Your task to perform on an android device: open chrome and create a bookmark for the current page Image 0: 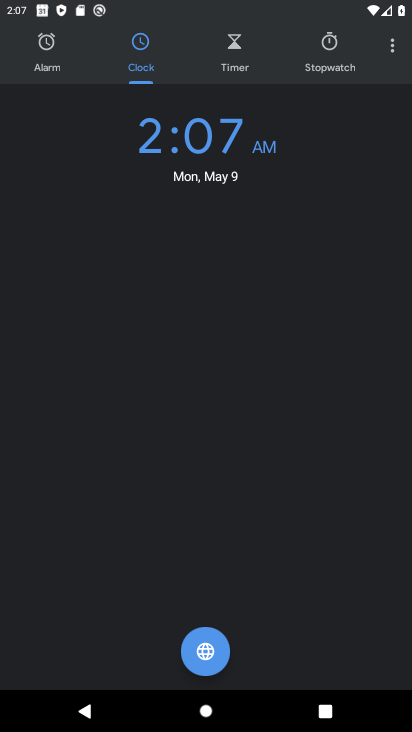
Step 0: press home button
Your task to perform on an android device: open chrome and create a bookmark for the current page Image 1: 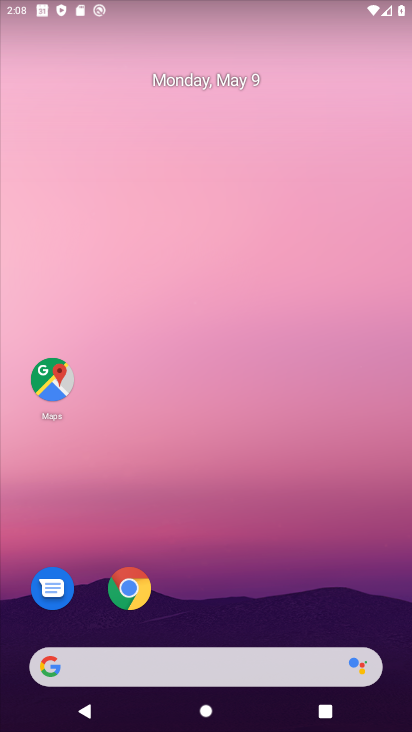
Step 1: click (128, 592)
Your task to perform on an android device: open chrome and create a bookmark for the current page Image 2: 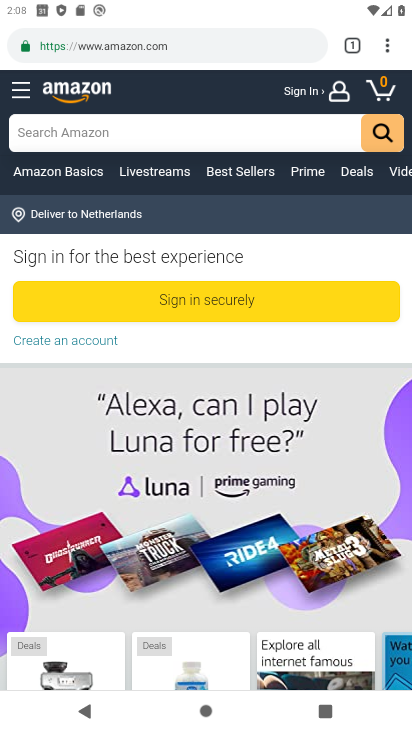
Step 2: press back button
Your task to perform on an android device: open chrome and create a bookmark for the current page Image 3: 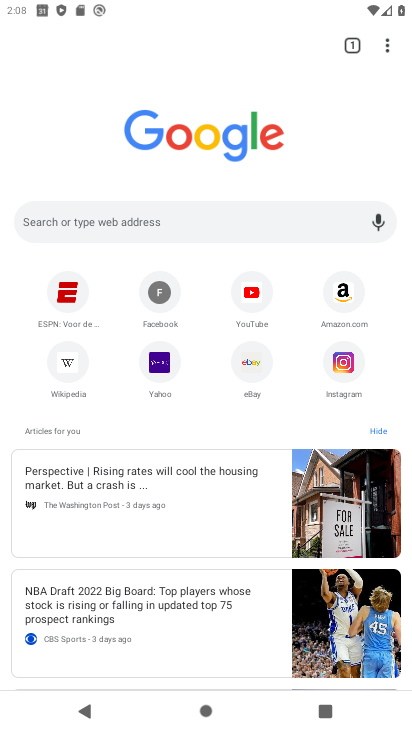
Step 3: click (388, 43)
Your task to perform on an android device: open chrome and create a bookmark for the current page Image 4: 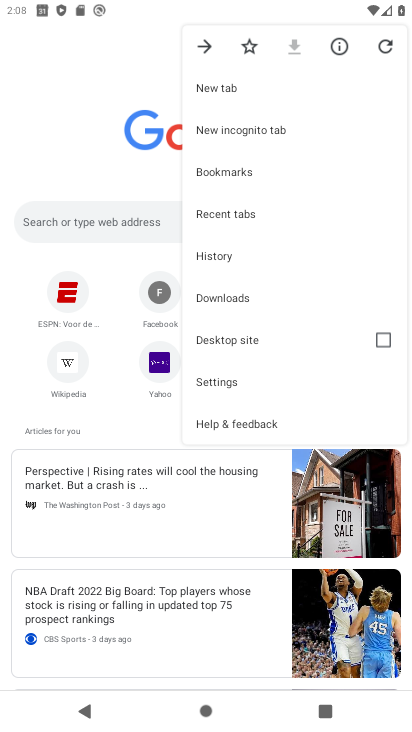
Step 4: click (250, 52)
Your task to perform on an android device: open chrome and create a bookmark for the current page Image 5: 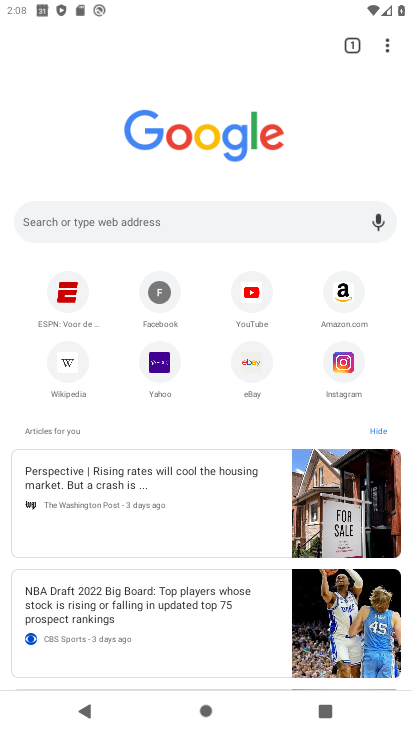
Step 5: task complete